Your task to perform on an android device: Add "macbook pro 15 inch" to the cart on target.com, then select checkout. Image 0: 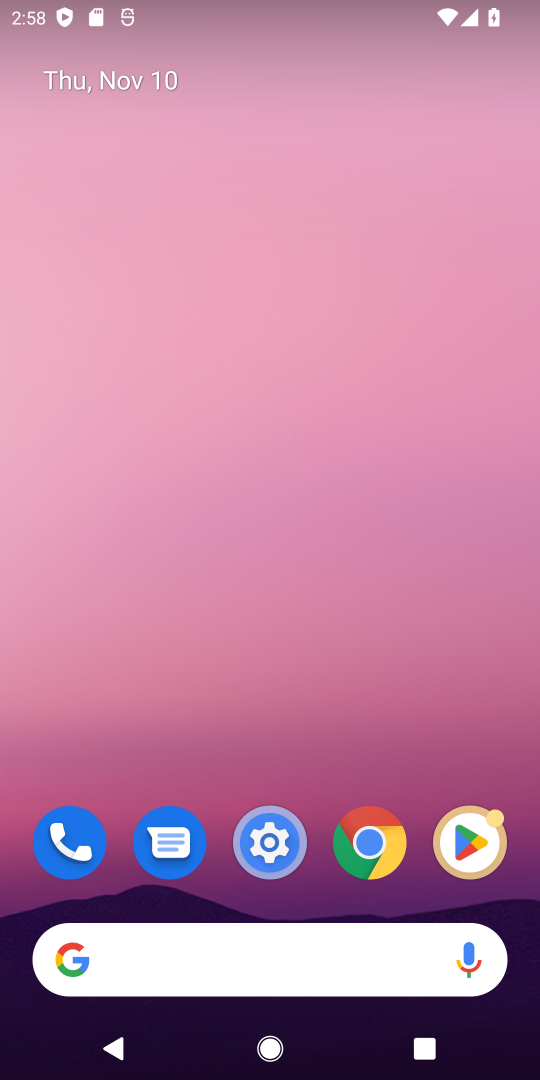
Step 0: press home button
Your task to perform on an android device: Add "macbook pro 15 inch" to the cart on target.com, then select checkout. Image 1: 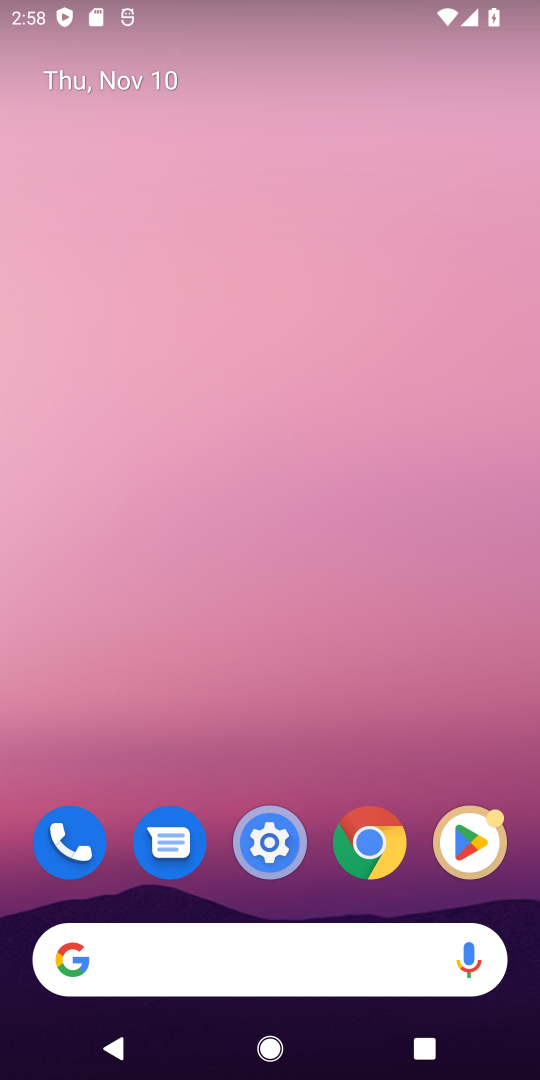
Step 1: click (104, 955)
Your task to perform on an android device: Add "macbook pro 15 inch" to the cart on target.com, then select checkout. Image 2: 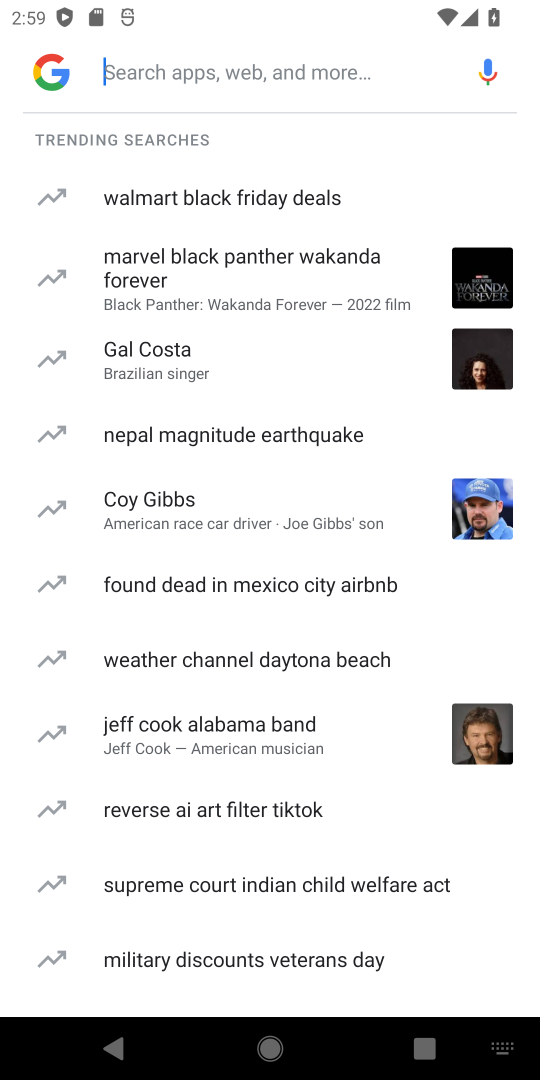
Step 2: type "target.com"
Your task to perform on an android device: Add "macbook pro 15 inch" to the cart on target.com, then select checkout. Image 3: 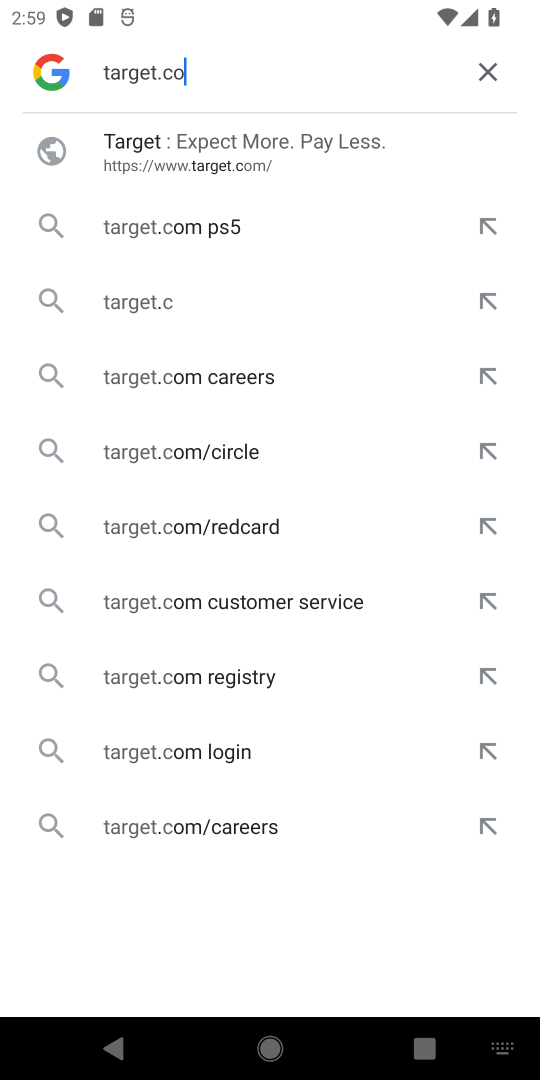
Step 3: press enter
Your task to perform on an android device: Add "macbook pro 15 inch" to the cart on target.com, then select checkout. Image 4: 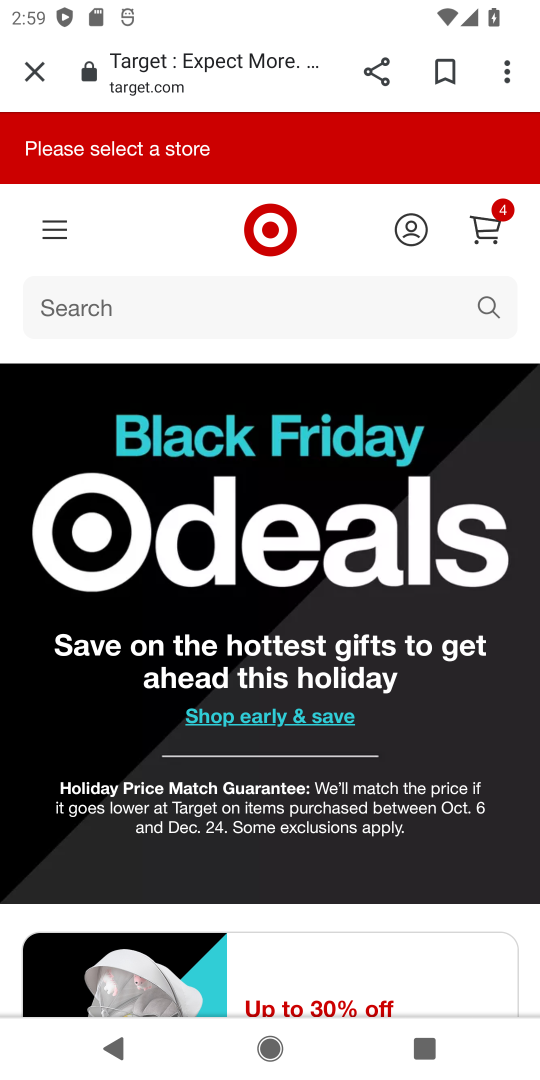
Step 4: click (65, 305)
Your task to perform on an android device: Add "macbook pro 15 inch" to the cart on target.com, then select checkout. Image 5: 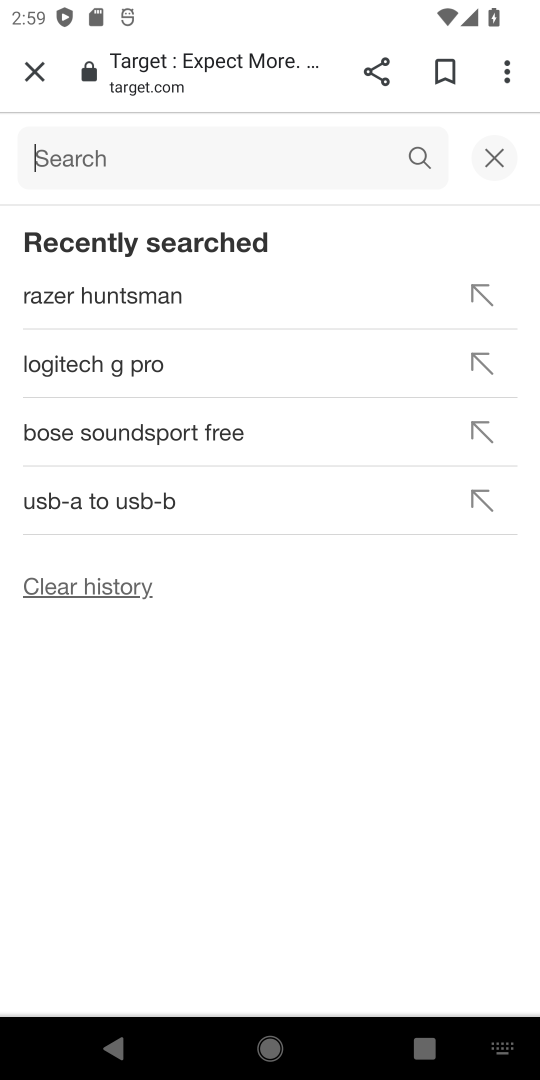
Step 5: type "macbook pro 15 inch"
Your task to perform on an android device: Add "macbook pro 15 inch" to the cart on target.com, then select checkout. Image 6: 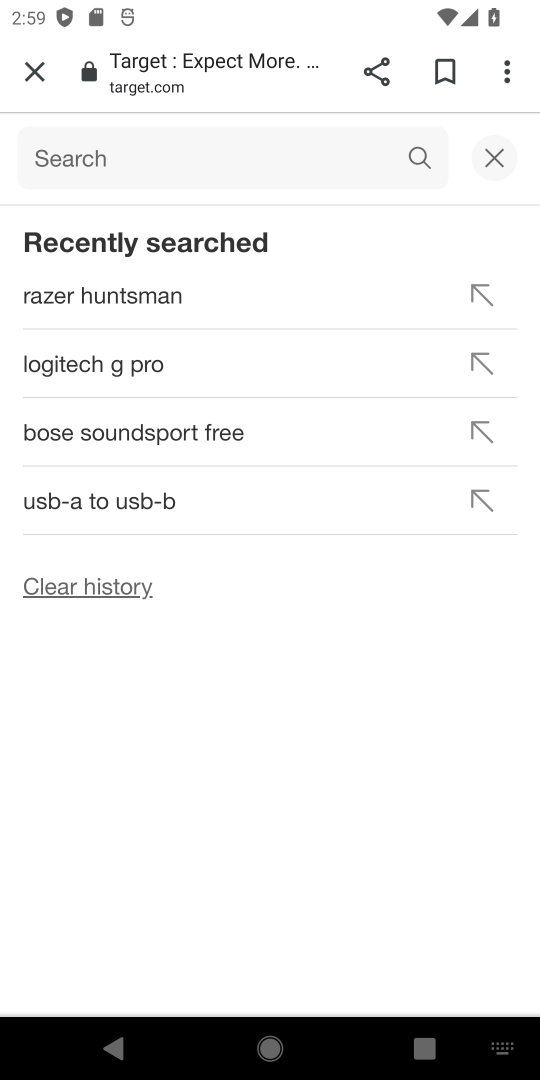
Step 6: press enter
Your task to perform on an android device: Add "macbook pro 15 inch" to the cart on target.com, then select checkout. Image 7: 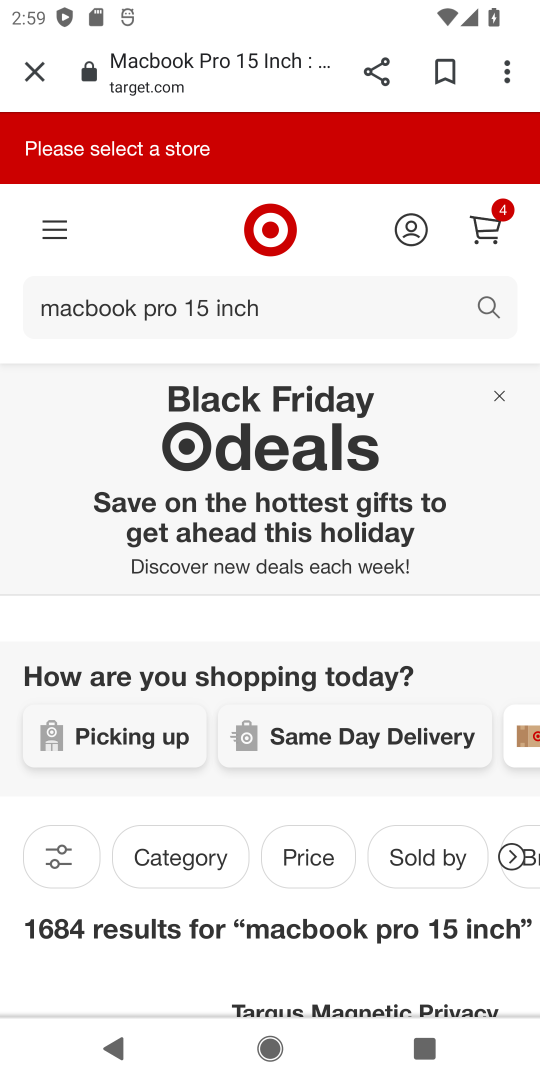
Step 7: task complete